Your task to perform on an android device: Open Google Maps and go to "Timeline" Image 0: 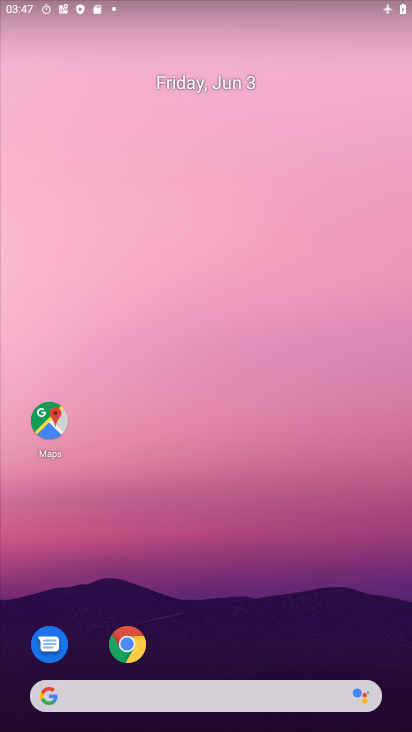
Step 0: drag from (199, 635) to (208, 596)
Your task to perform on an android device: Open Google Maps and go to "Timeline" Image 1: 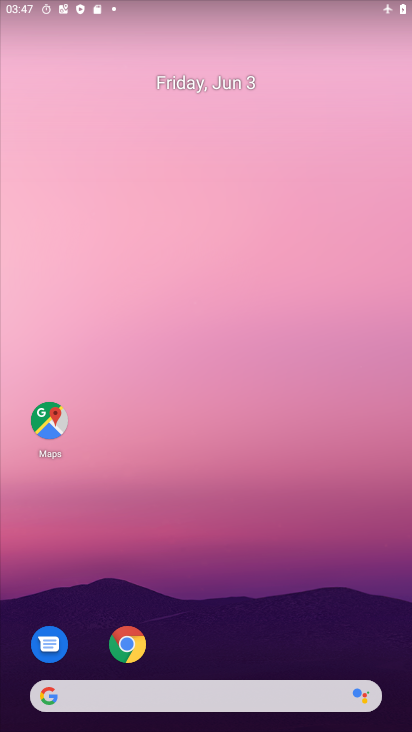
Step 1: click (64, 420)
Your task to perform on an android device: Open Google Maps and go to "Timeline" Image 2: 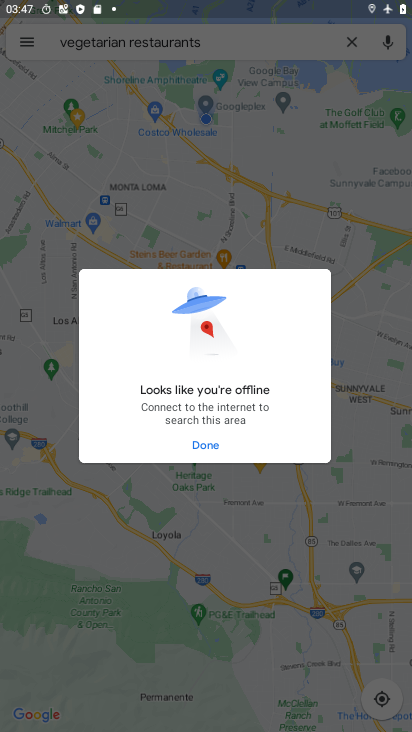
Step 2: click (215, 443)
Your task to perform on an android device: Open Google Maps and go to "Timeline" Image 3: 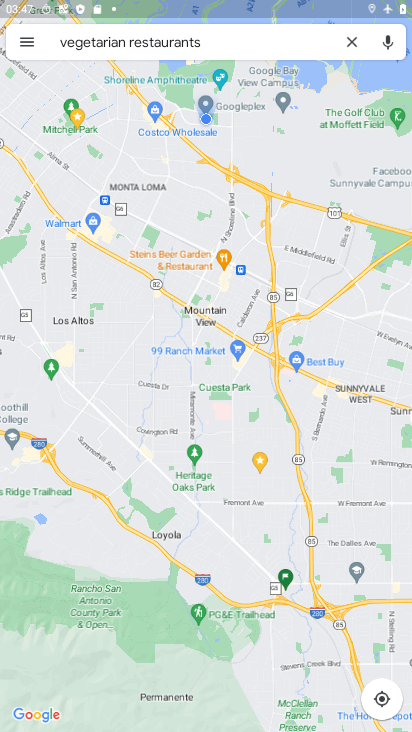
Step 3: click (32, 32)
Your task to perform on an android device: Open Google Maps and go to "Timeline" Image 4: 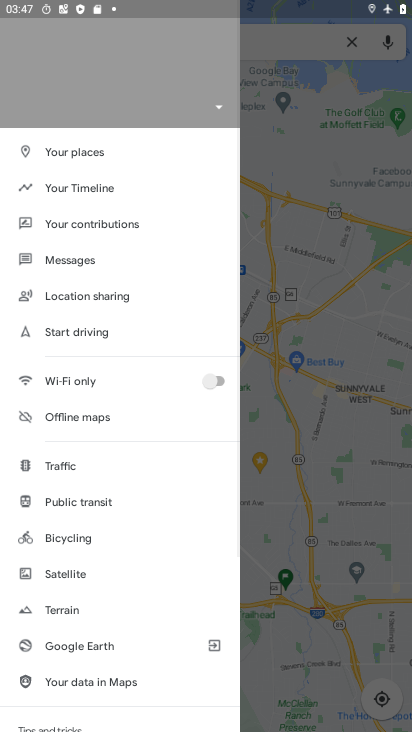
Step 4: click (102, 189)
Your task to perform on an android device: Open Google Maps and go to "Timeline" Image 5: 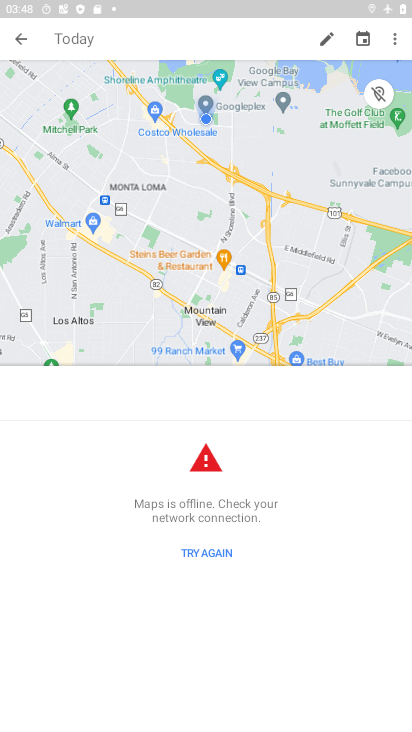
Step 5: click (10, 32)
Your task to perform on an android device: Open Google Maps and go to "Timeline" Image 6: 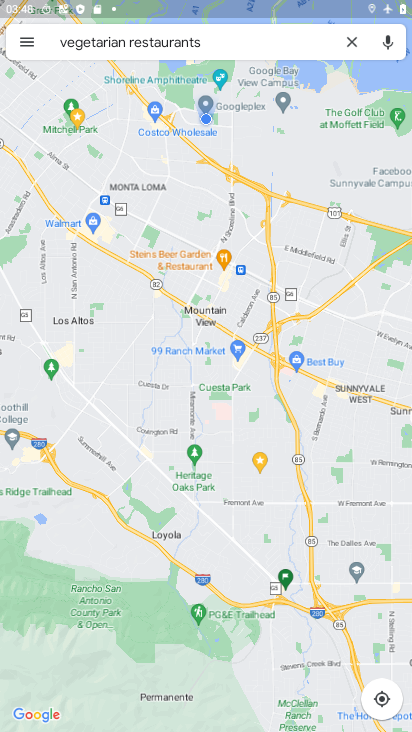
Step 6: click (11, 32)
Your task to perform on an android device: Open Google Maps and go to "Timeline" Image 7: 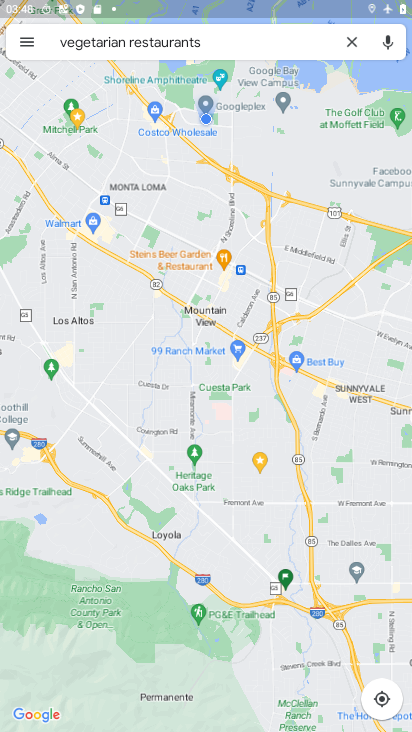
Step 7: click (30, 53)
Your task to perform on an android device: Open Google Maps and go to "Timeline" Image 8: 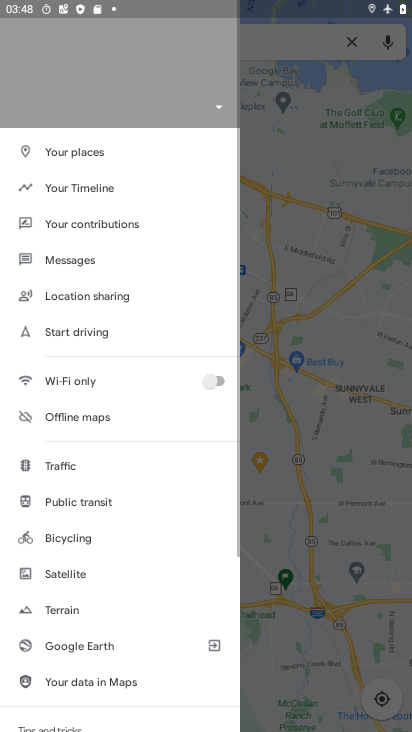
Step 8: click (96, 193)
Your task to perform on an android device: Open Google Maps and go to "Timeline" Image 9: 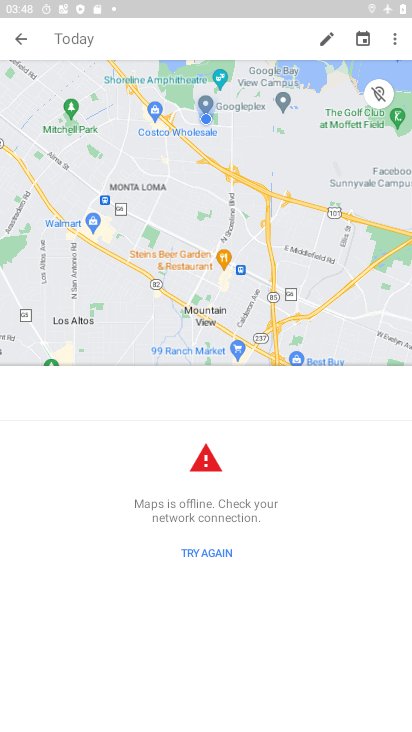
Step 9: task complete